Your task to perform on an android device: toggle wifi Image 0: 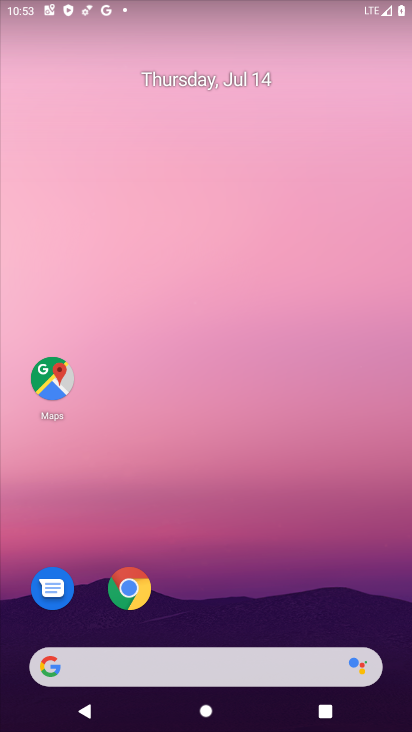
Step 0: drag from (195, 674) to (310, 106)
Your task to perform on an android device: toggle wifi Image 1: 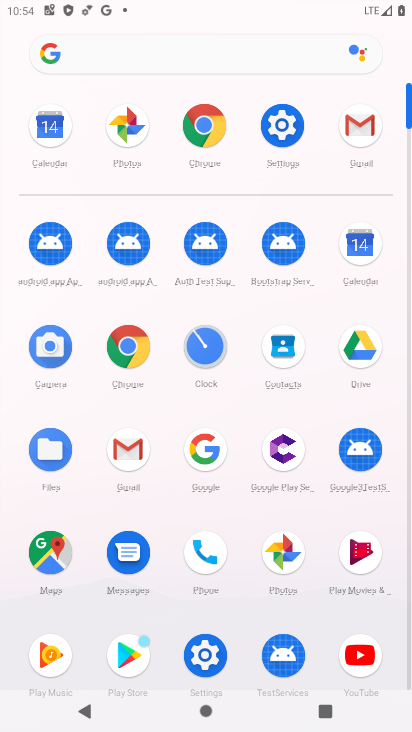
Step 1: click (281, 130)
Your task to perform on an android device: toggle wifi Image 2: 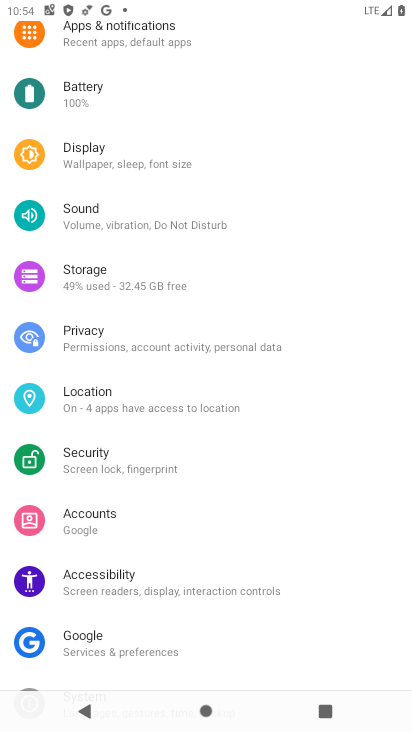
Step 2: drag from (316, 127) to (268, 542)
Your task to perform on an android device: toggle wifi Image 3: 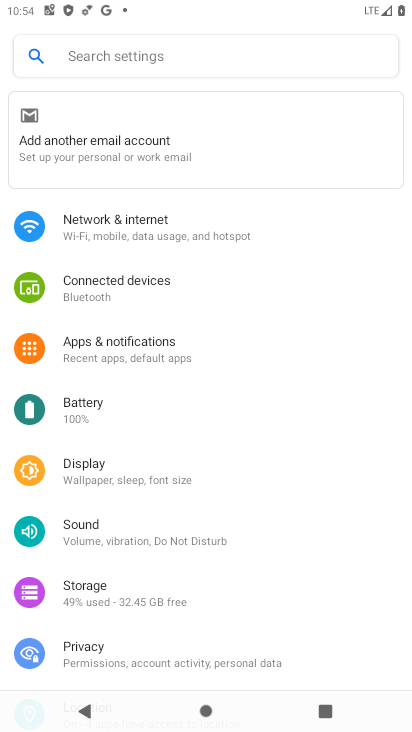
Step 3: click (145, 229)
Your task to perform on an android device: toggle wifi Image 4: 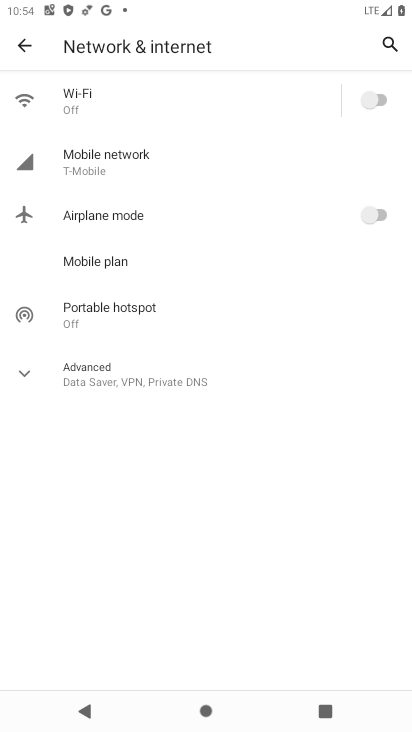
Step 4: click (383, 96)
Your task to perform on an android device: toggle wifi Image 5: 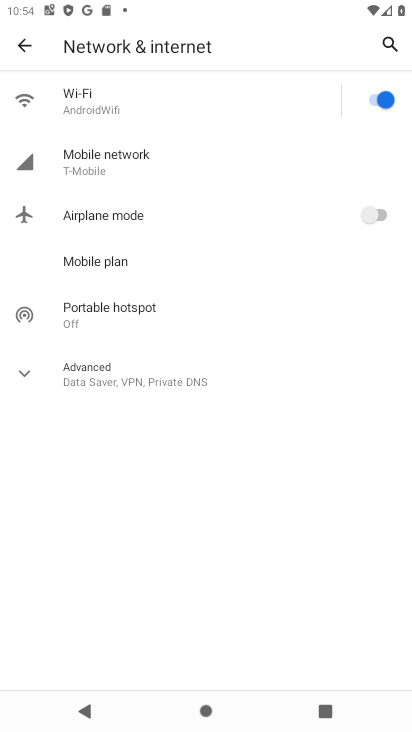
Step 5: task complete